Your task to perform on an android device: Show me popular games on the Play Store Image 0: 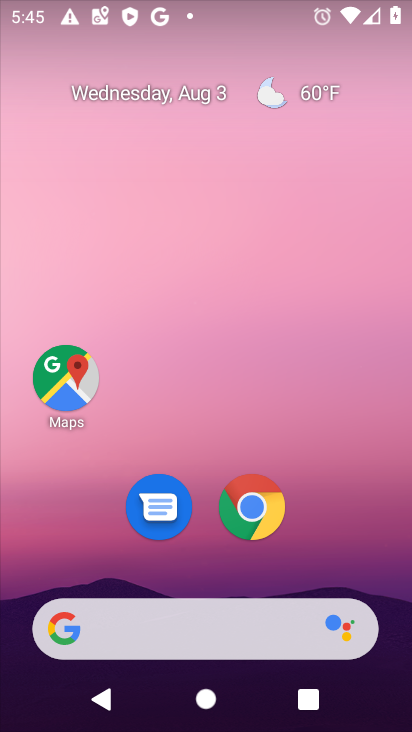
Step 0: drag from (355, 566) to (348, 53)
Your task to perform on an android device: Show me popular games on the Play Store Image 1: 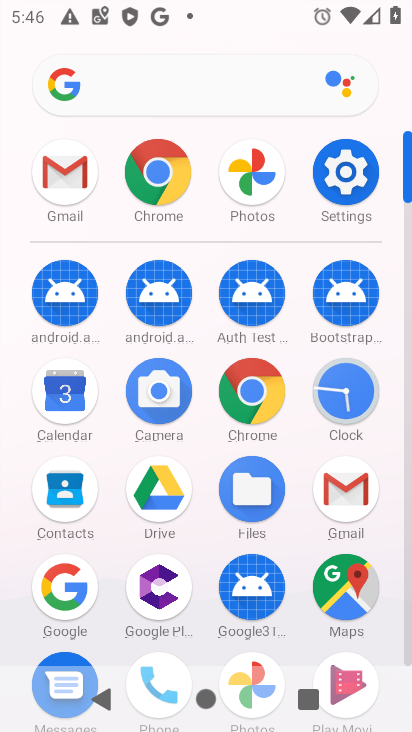
Step 1: drag from (304, 627) to (325, 218)
Your task to perform on an android device: Show me popular games on the Play Store Image 2: 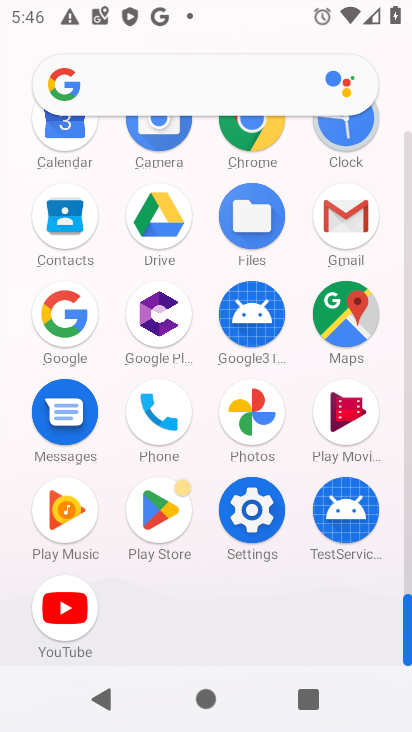
Step 2: click (170, 504)
Your task to perform on an android device: Show me popular games on the Play Store Image 3: 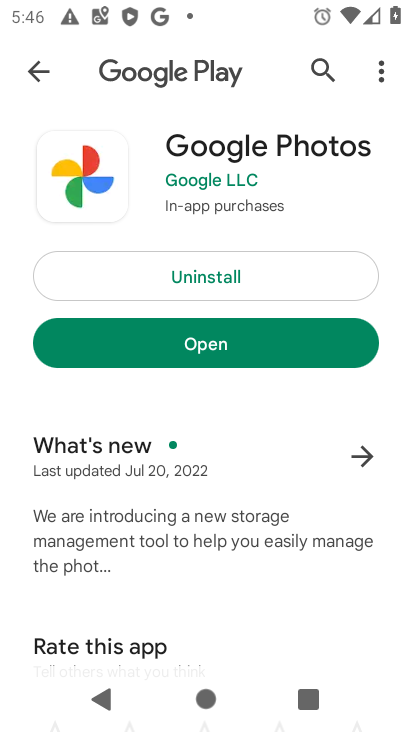
Step 3: click (45, 76)
Your task to perform on an android device: Show me popular games on the Play Store Image 4: 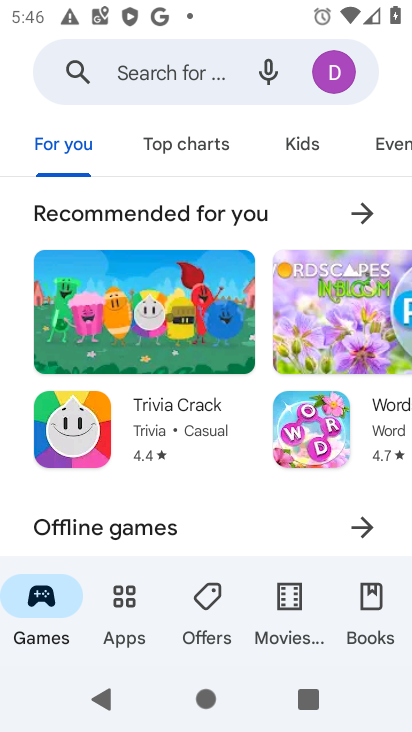
Step 4: task complete